Your task to perform on an android device: set the timer Image 0: 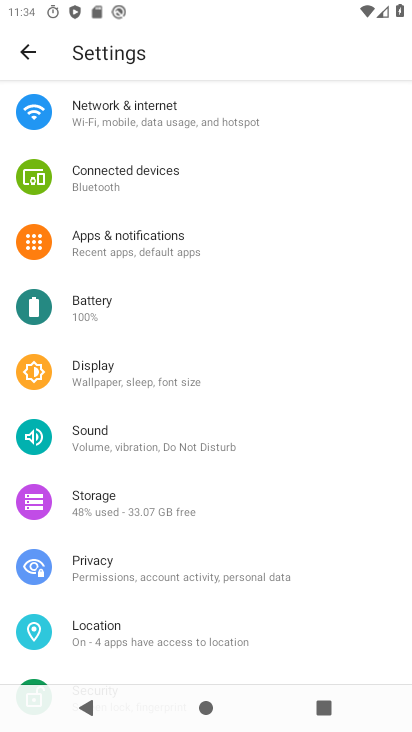
Step 0: press home button
Your task to perform on an android device: set the timer Image 1: 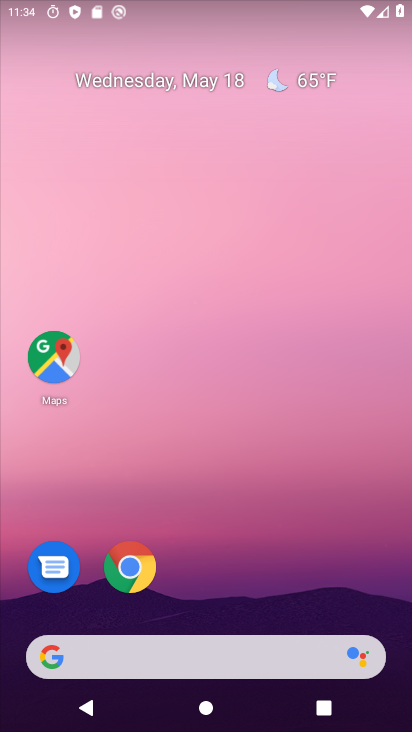
Step 1: drag from (236, 614) to (269, 85)
Your task to perform on an android device: set the timer Image 2: 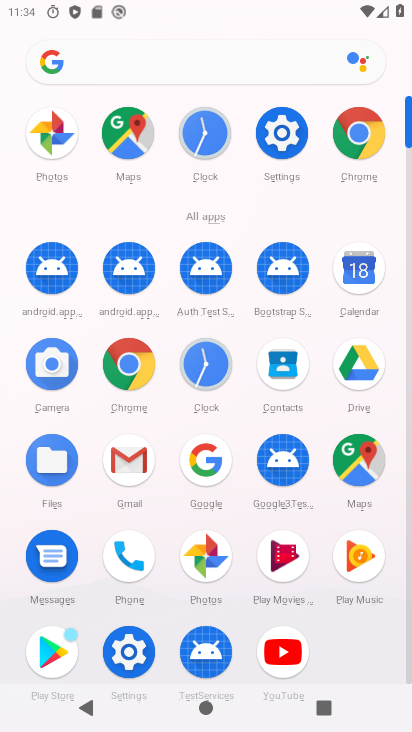
Step 2: click (197, 129)
Your task to perform on an android device: set the timer Image 3: 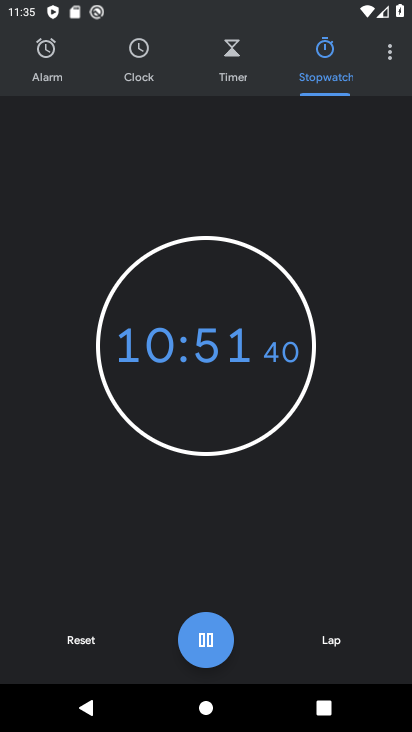
Step 3: click (244, 51)
Your task to perform on an android device: set the timer Image 4: 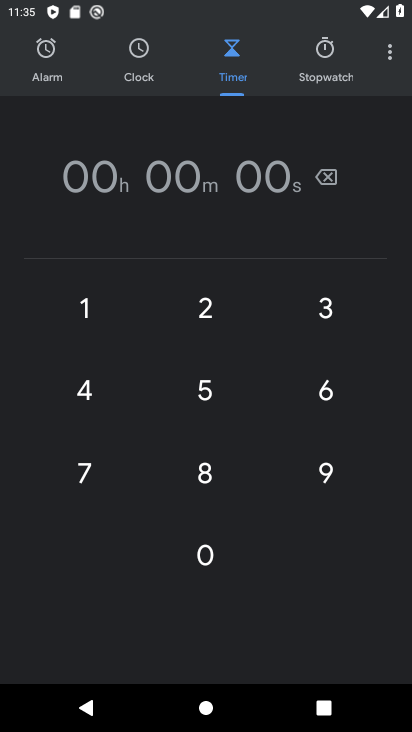
Step 4: click (106, 299)
Your task to perform on an android device: set the timer Image 5: 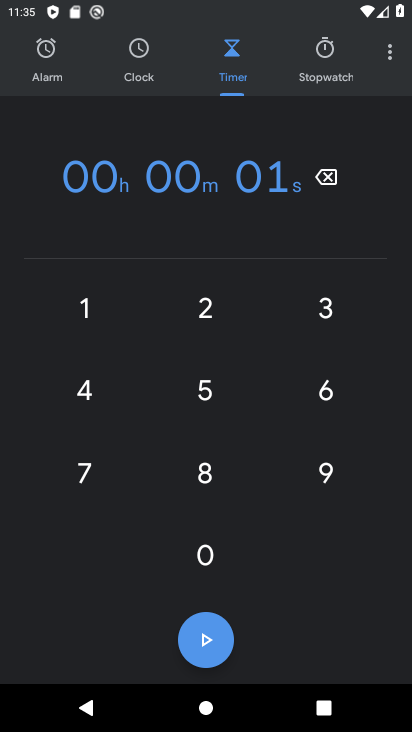
Step 5: click (192, 317)
Your task to perform on an android device: set the timer Image 6: 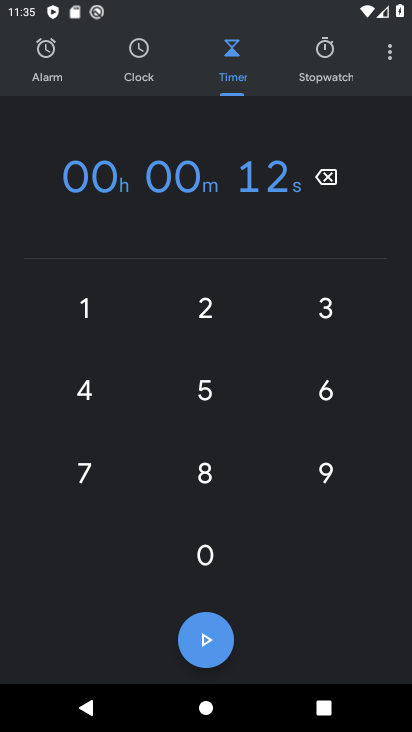
Step 6: click (316, 326)
Your task to perform on an android device: set the timer Image 7: 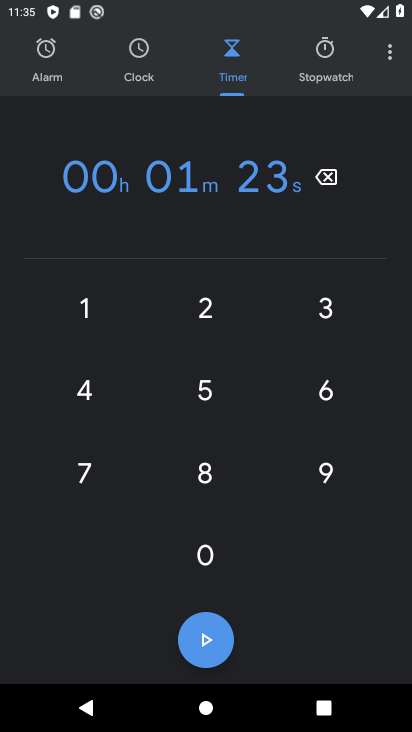
Step 7: click (219, 387)
Your task to perform on an android device: set the timer Image 8: 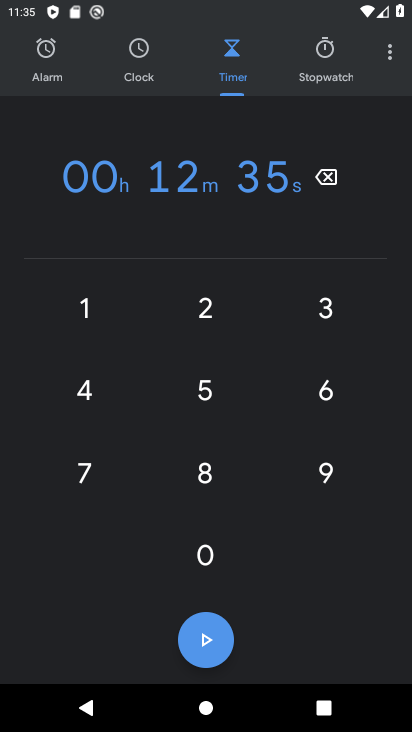
Step 8: click (325, 388)
Your task to perform on an android device: set the timer Image 9: 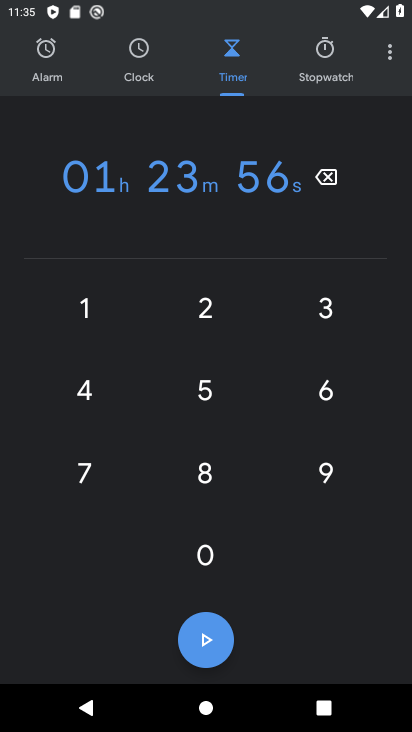
Step 9: click (226, 637)
Your task to perform on an android device: set the timer Image 10: 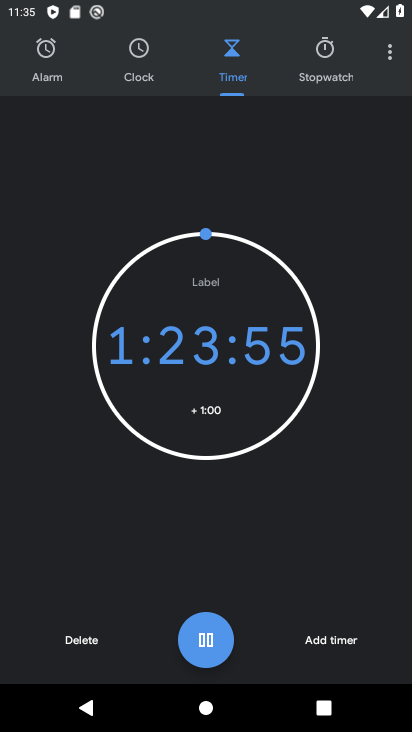
Step 10: task complete